Your task to perform on an android device: add a contact Image 0: 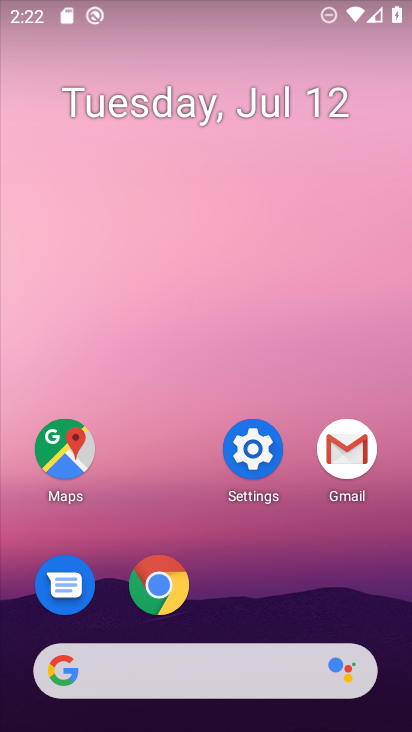
Step 0: drag from (397, 671) to (370, 315)
Your task to perform on an android device: add a contact Image 1: 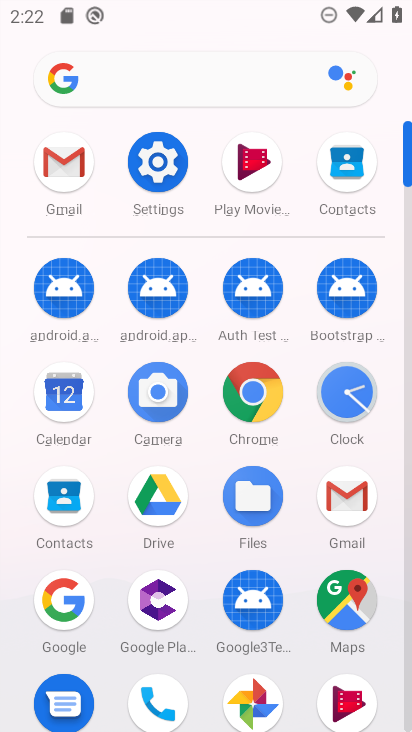
Step 1: click (64, 510)
Your task to perform on an android device: add a contact Image 2: 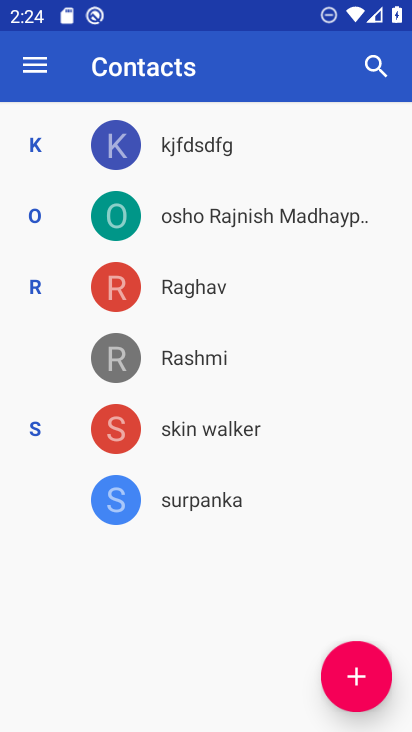
Step 2: click (348, 664)
Your task to perform on an android device: add a contact Image 3: 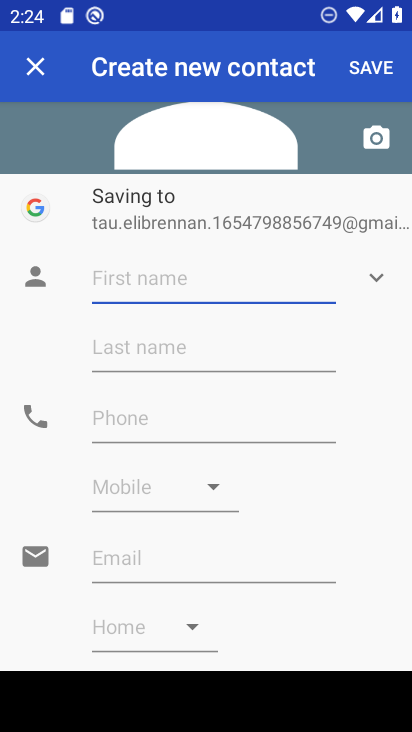
Step 3: type "Pandit"
Your task to perform on an android device: add a contact Image 4: 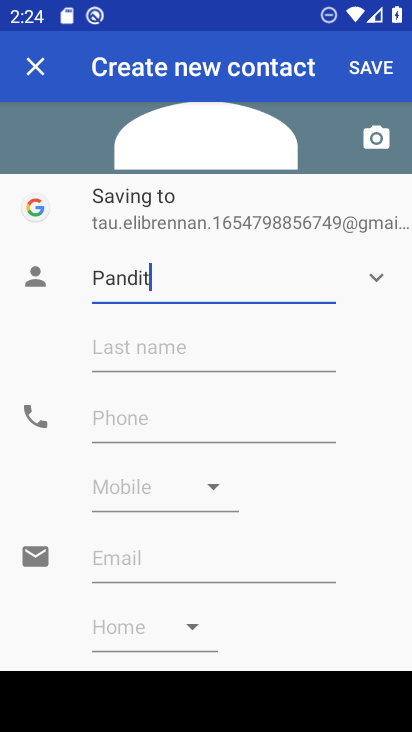
Step 4: click (171, 346)
Your task to perform on an android device: add a contact Image 5: 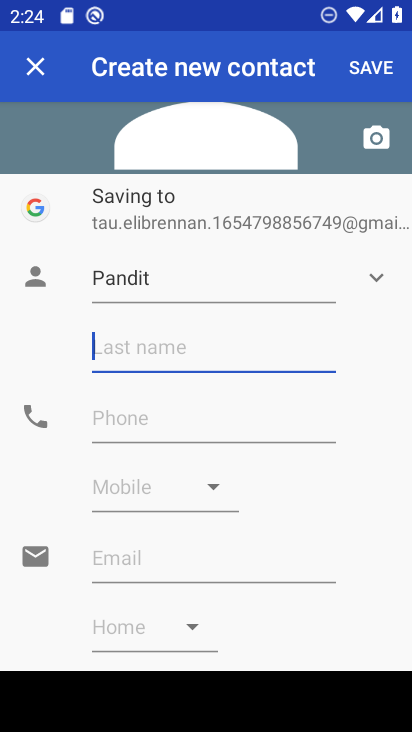
Step 5: type "Jawahar Lal Neharu"
Your task to perform on an android device: add a contact Image 6: 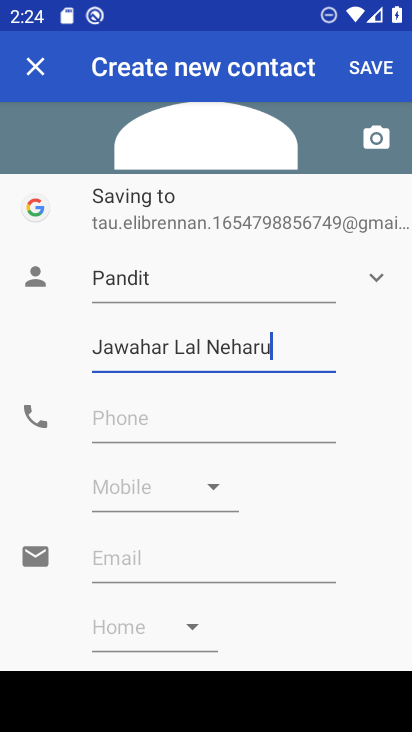
Step 6: click (108, 423)
Your task to perform on an android device: add a contact Image 7: 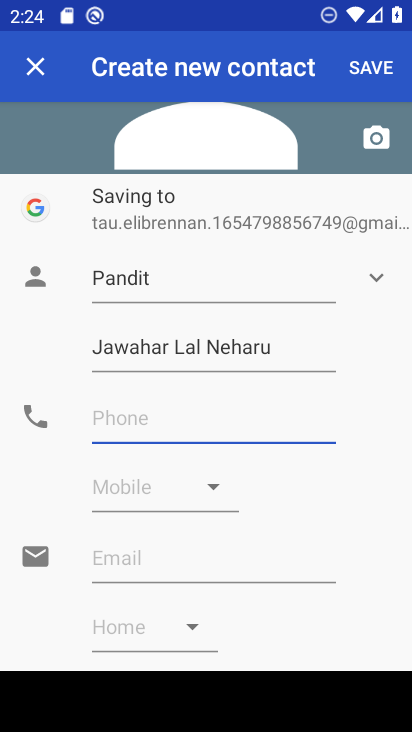
Step 7: click (288, 343)
Your task to perform on an android device: add a contact Image 8: 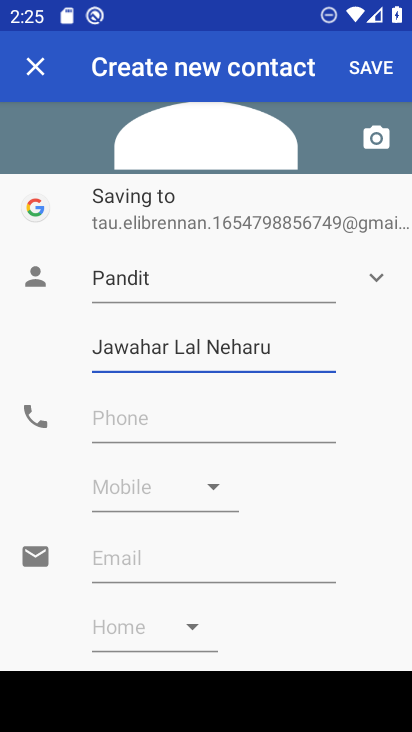
Step 8: type "UP bale"
Your task to perform on an android device: add a contact Image 9: 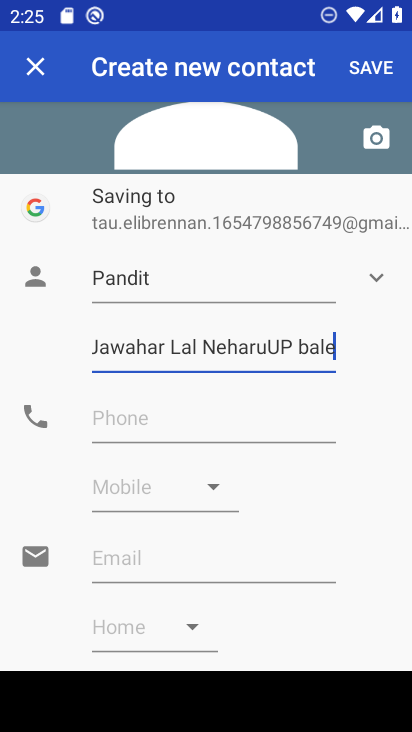
Step 9: click (266, 345)
Your task to perform on an android device: add a contact Image 10: 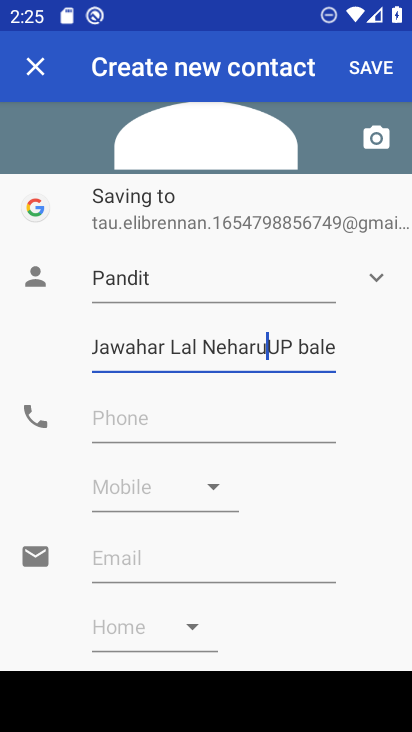
Step 10: type "  "
Your task to perform on an android device: add a contact Image 11: 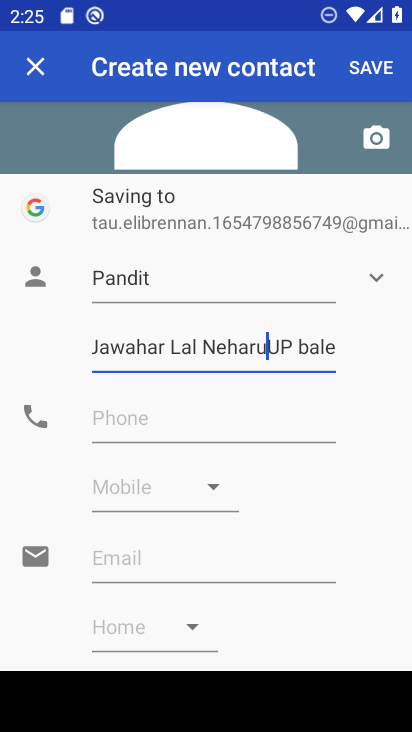
Step 11: click (143, 426)
Your task to perform on an android device: add a contact Image 12: 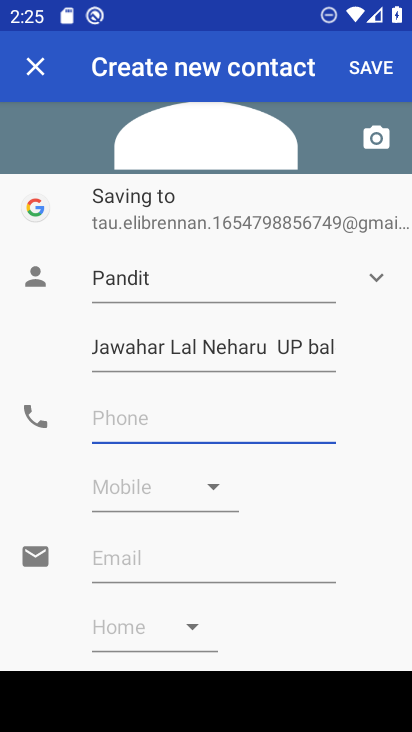
Step 12: type "67845336553"
Your task to perform on an android device: add a contact Image 13: 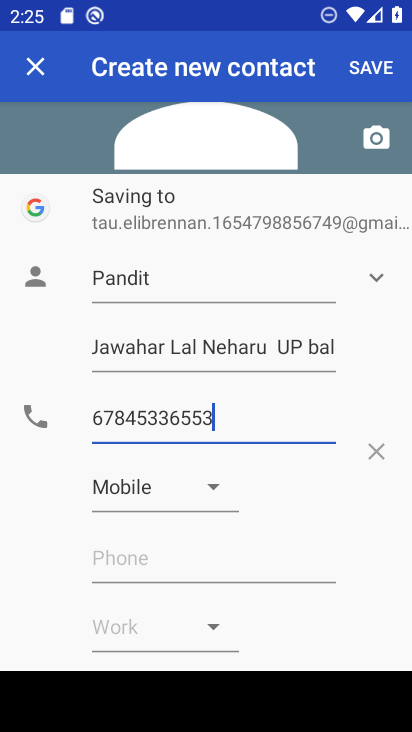
Step 13: click (380, 60)
Your task to perform on an android device: add a contact Image 14: 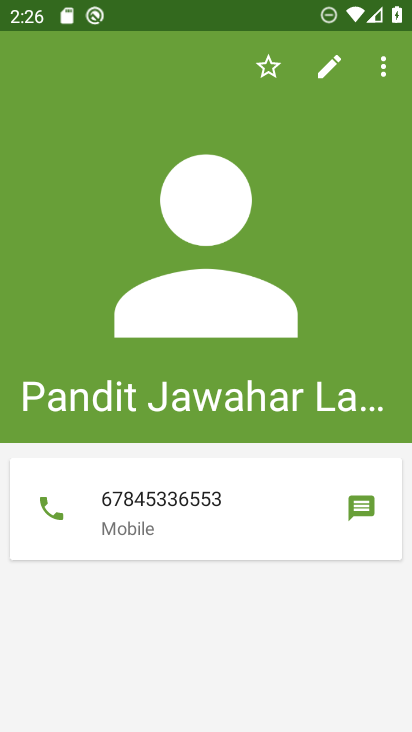
Step 14: task complete